Your task to perform on an android device: turn pop-ups off in chrome Image 0: 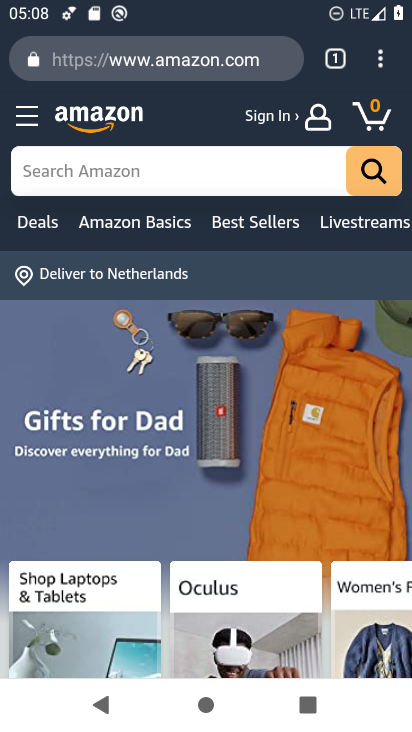
Step 0: press home button
Your task to perform on an android device: turn pop-ups off in chrome Image 1: 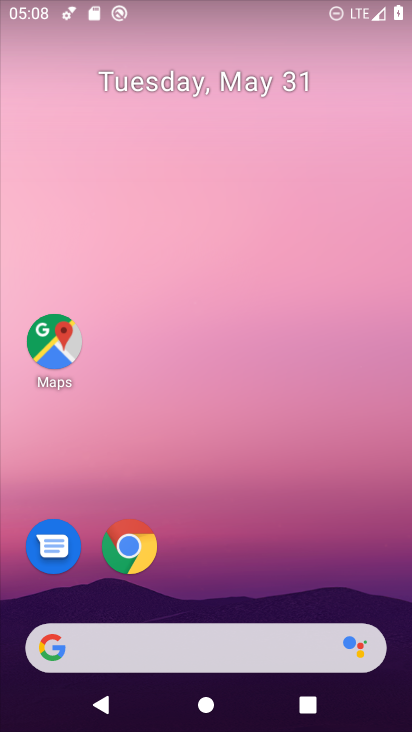
Step 1: click (126, 560)
Your task to perform on an android device: turn pop-ups off in chrome Image 2: 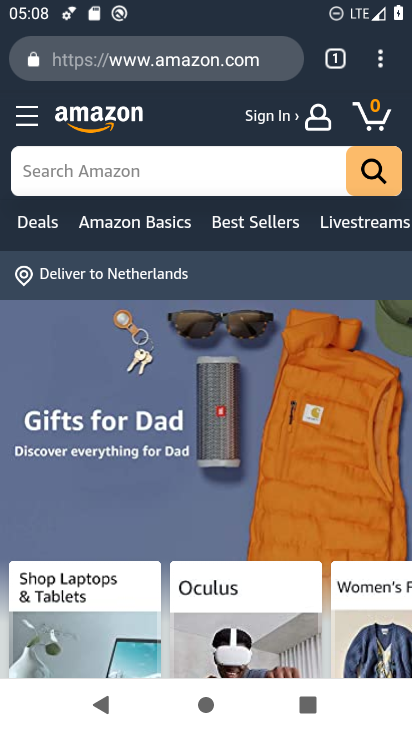
Step 2: click (382, 67)
Your task to perform on an android device: turn pop-ups off in chrome Image 3: 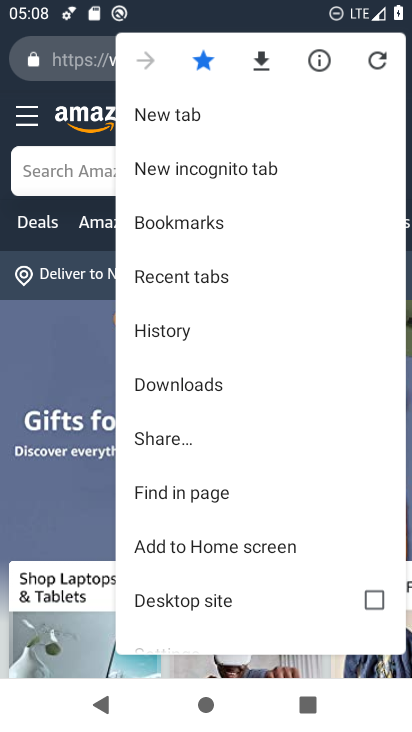
Step 3: drag from (203, 577) to (228, 326)
Your task to perform on an android device: turn pop-ups off in chrome Image 4: 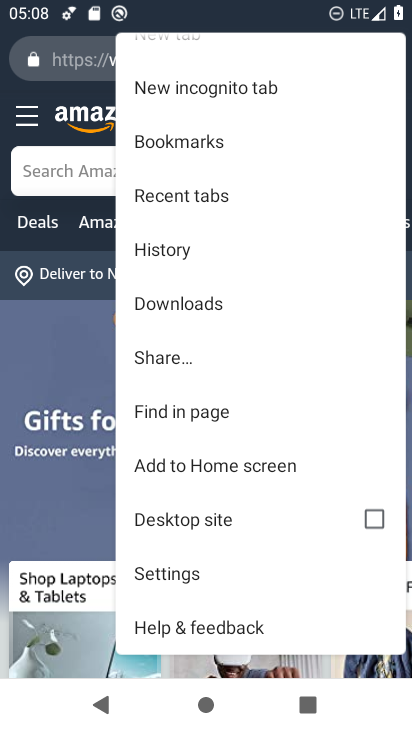
Step 4: click (177, 579)
Your task to perform on an android device: turn pop-ups off in chrome Image 5: 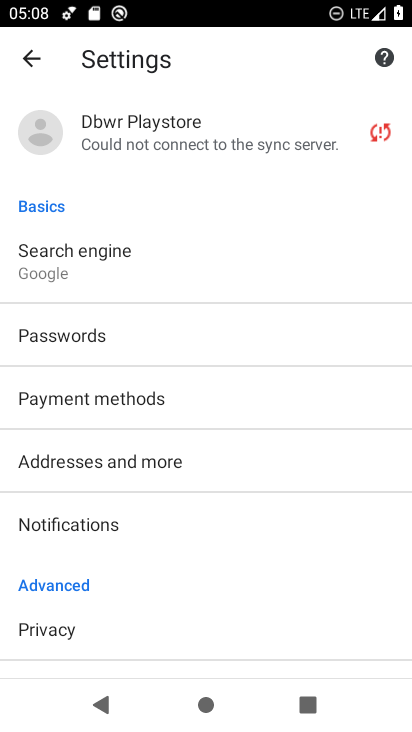
Step 5: drag from (176, 600) to (179, 348)
Your task to perform on an android device: turn pop-ups off in chrome Image 6: 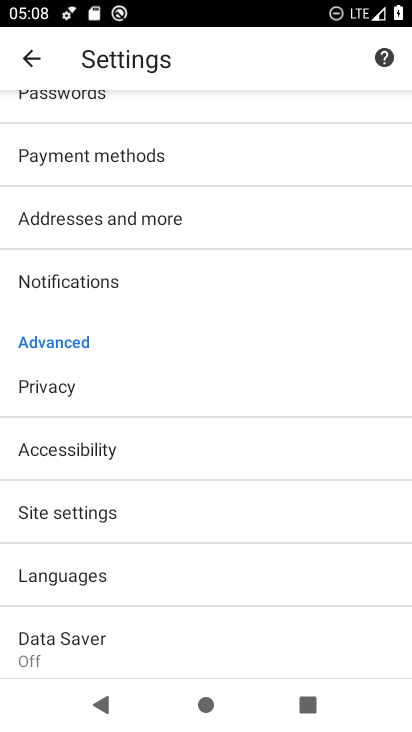
Step 6: click (88, 510)
Your task to perform on an android device: turn pop-ups off in chrome Image 7: 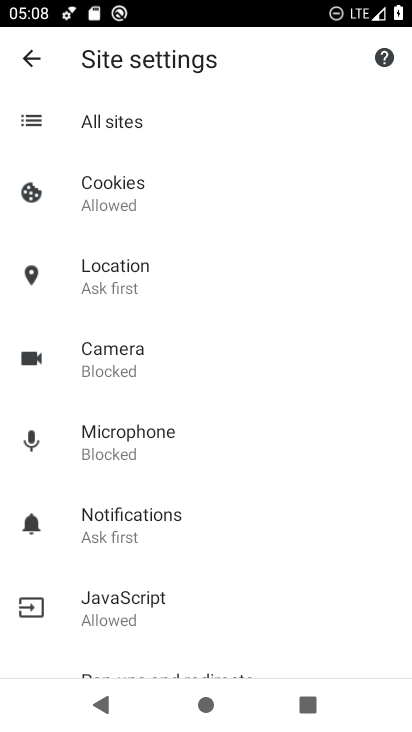
Step 7: drag from (208, 575) to (212, 345)
Your task to perform on an android device: turn pop-ups off in chrome Image 8: 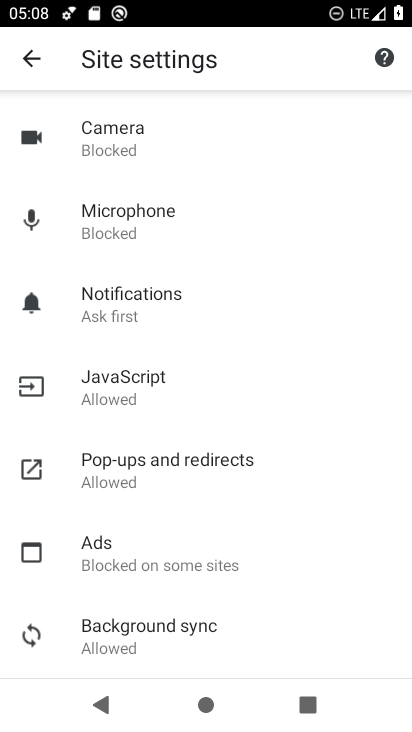
Step 8: click (170, 481)
Your task to perform on an android device: turn pop-ups off in chrome Image 9: 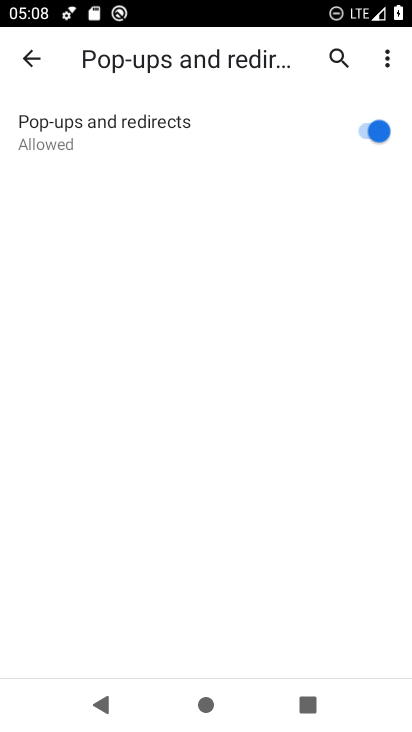
Step 9: click (364, 134)
Your task to perform on an android device: turn pop-ups off in chrome Image 10: 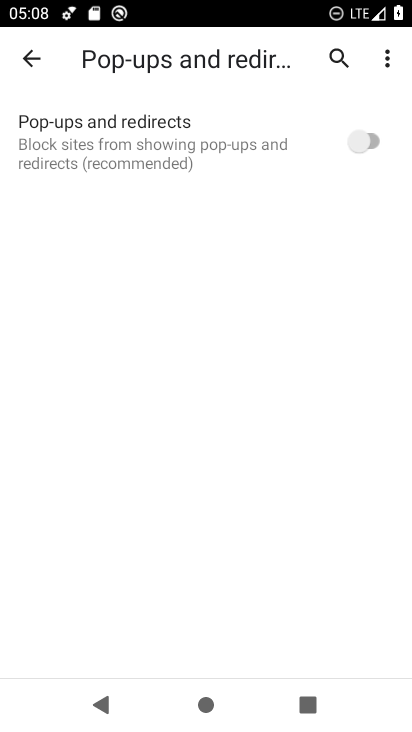
Step 10: task complete